Your task to perform on an android device: Open Chrome and go to settings Image 0: 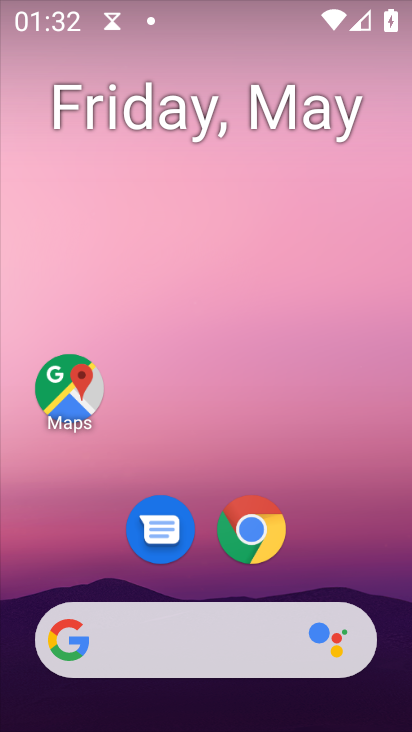
Step 0: drag from (321, 551) to (328, 268)
Your task to perform on an android device: Open Chrome and go to settings Image 1: 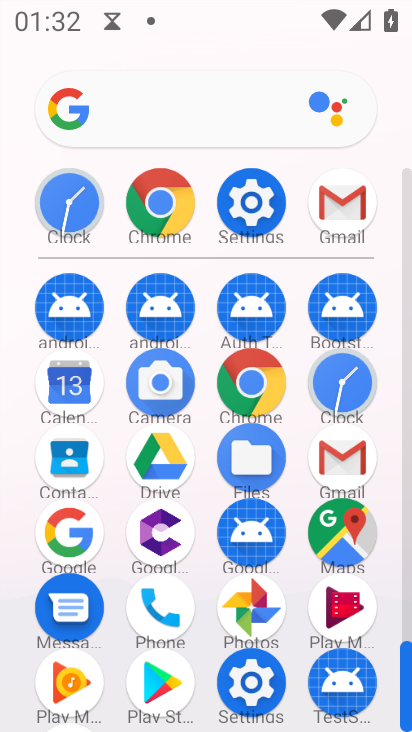
Step 1: click (165, 196)
Your task to perform on an android device: Open Chrome and go to settings Image 2: 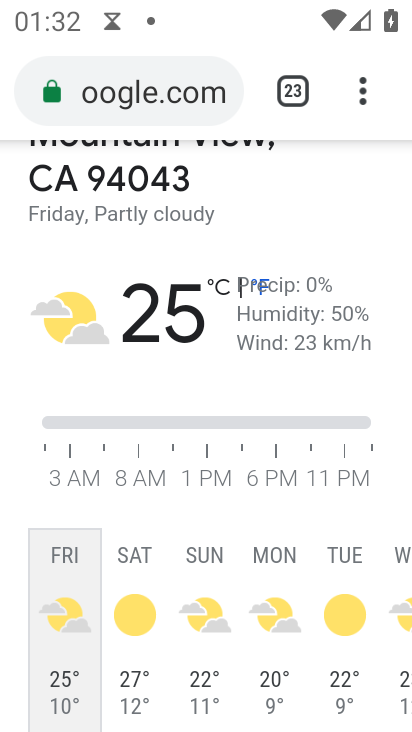
Step 2: click (342, 80)
Your task to perform on an android device: Open Chrome and go to settings Image 3: 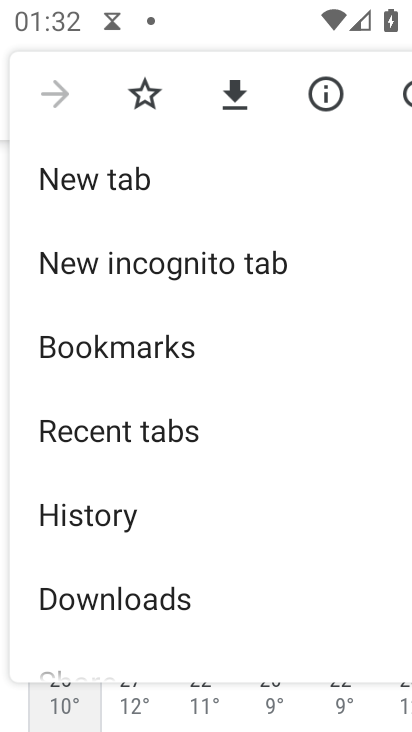
Step 3: drag from (114, 540) to (187, 191)
Your task to perform on an android device: Open Chrome and go to settings Image 4: 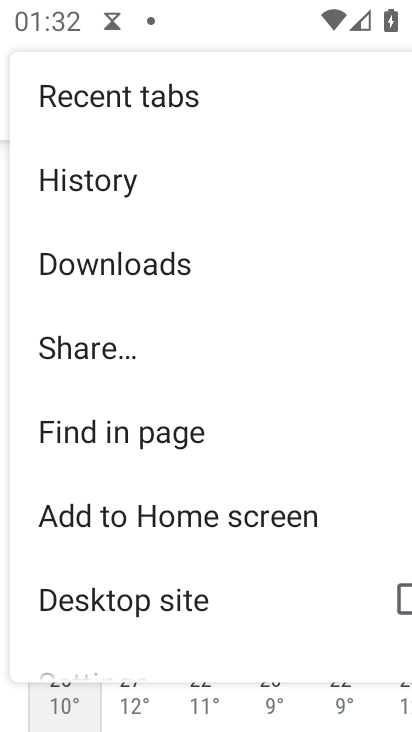
Step 4: drag from (124, 534) to (185, 181)
Your task to perform on an android device: Open Chrome and go to settings Image 5: 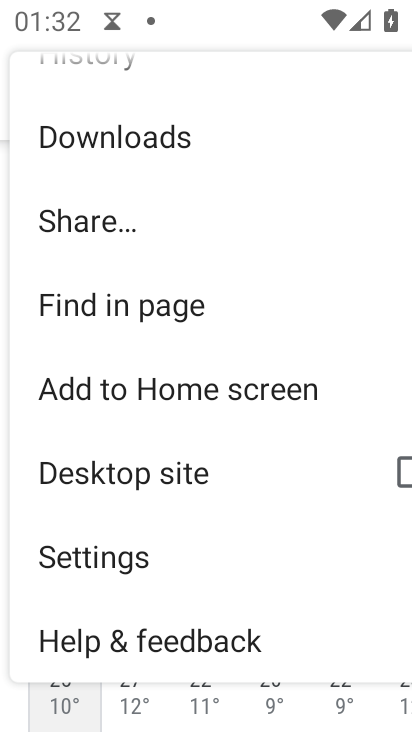
Step 5: click (129, 551)
Your task to perform on an android device: Open Chrome and go to settings Image 6: 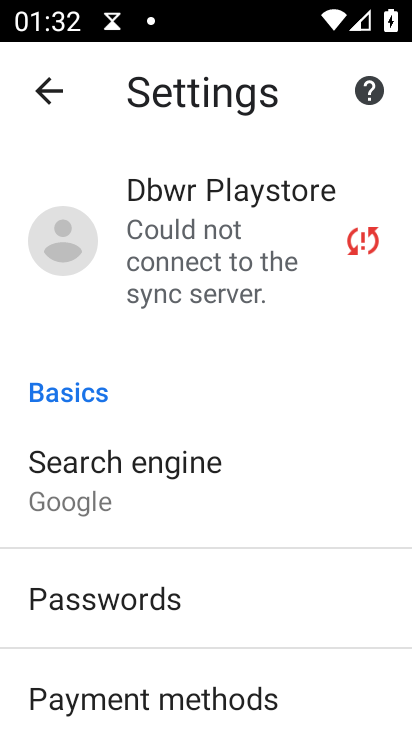
Step 6: task complete